Your task to perform on an android device: change alarm snooze length Image 0: 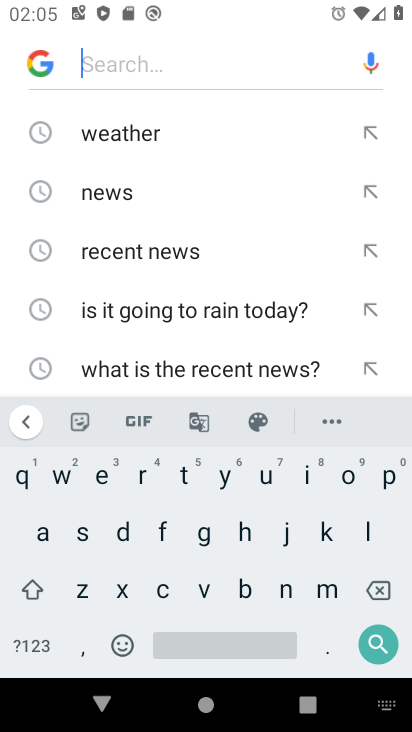
Step 0: press home button
Your task to perform on an android device: change alarm snooze length Image 1: 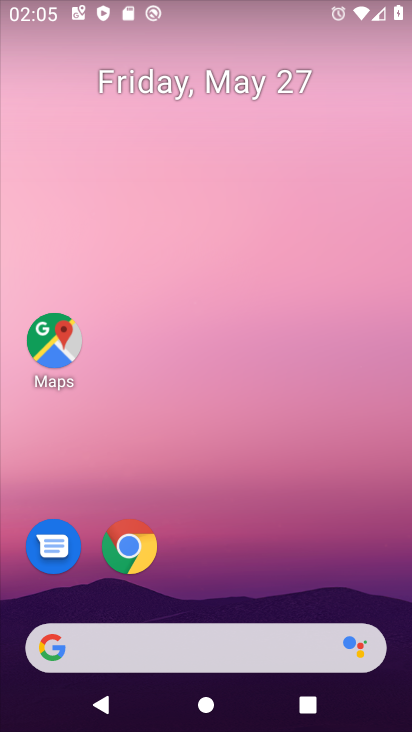
Step 1: drag from (263, 676) to (231, 162)
Your task to perform on an android device: change alarm snooze length Image 2: 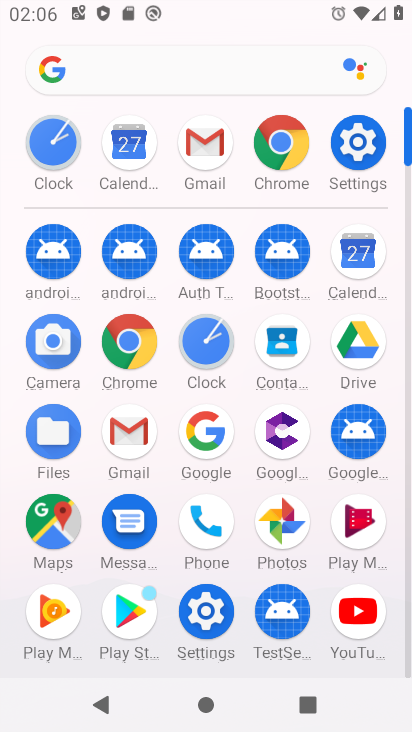
Step 2: click (218, 335)
Your task to perform on an android device: change alarm snooze length Image 3: 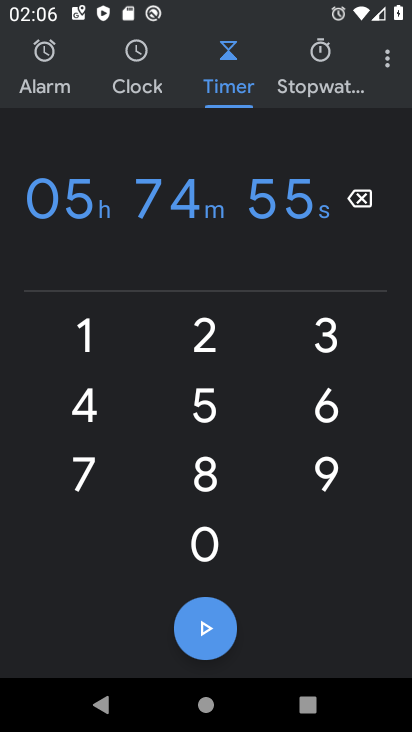
Step 3: click (383, 55)
Your task to perform on an android device: change alarm snooze length Image 4: 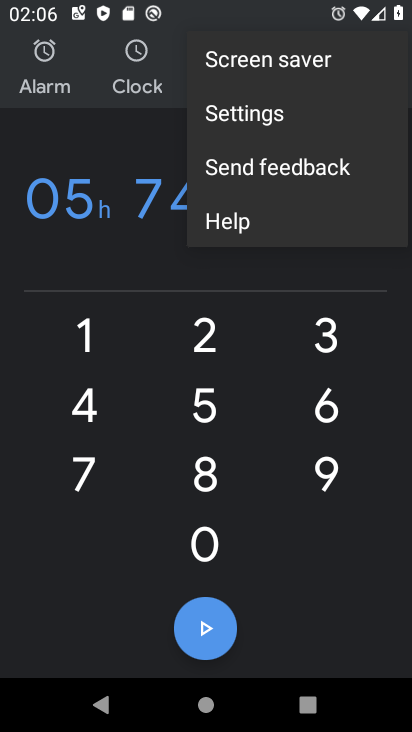
Step 4: click (286, 106)
Your task to perform on an android device: change alarm snooze length Image 5: 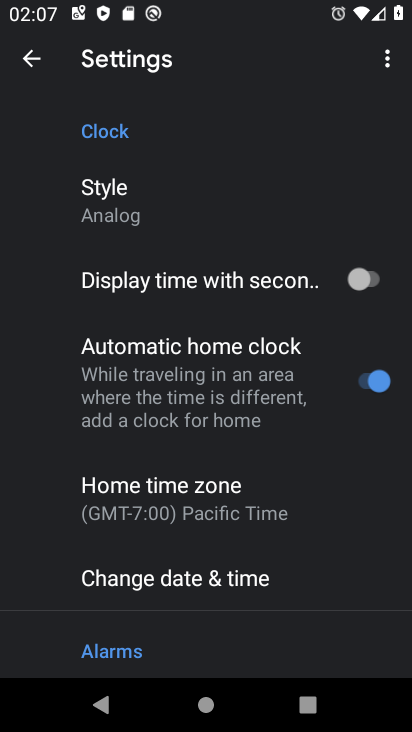
Step 5: drag from (215, 541) to (225, 153)
Your task to perform on an android device: change alarm snooze length Image 6: 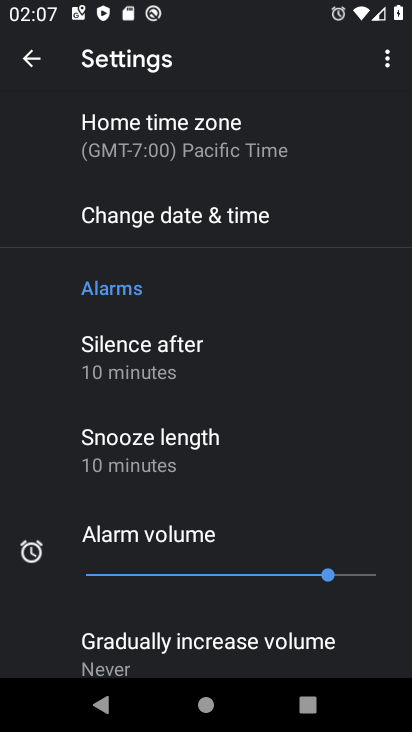
Step 6: click (203, 428)
Your task to perform on an android device: change alarm snooze length Image 7: 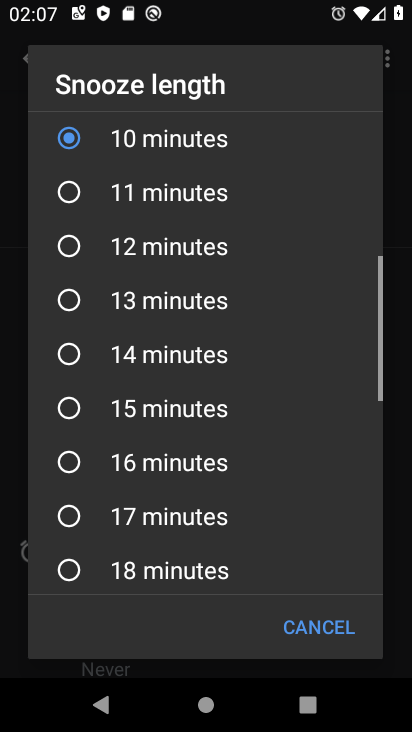
Step 7: click (178, 321)
Your task to perform on an android device: change alarm snooze length Image 8: 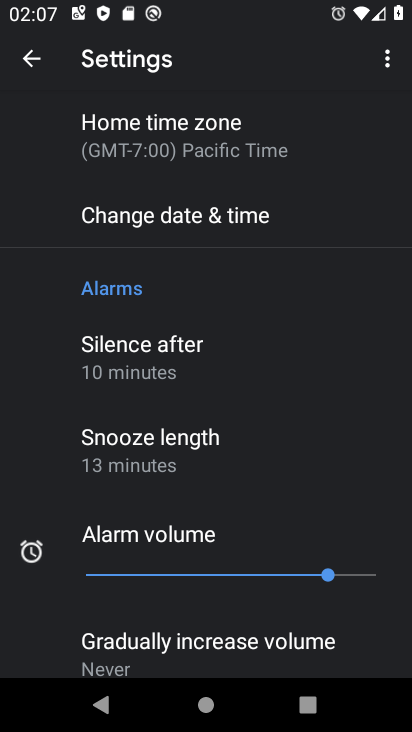
Step 8: task complete